Your task to perform on an android device: toggle translation in the chrome app Image 0: 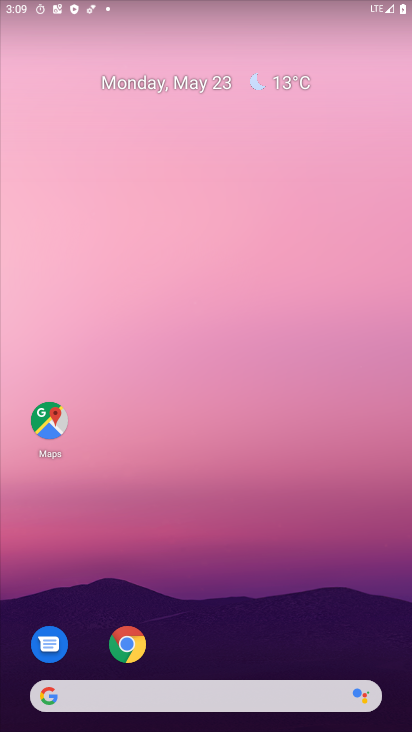
Step 0: drag from (151, 87) to (146, 35)
Your task to perform on an android device: toggle translation in the chrome app Image 1: 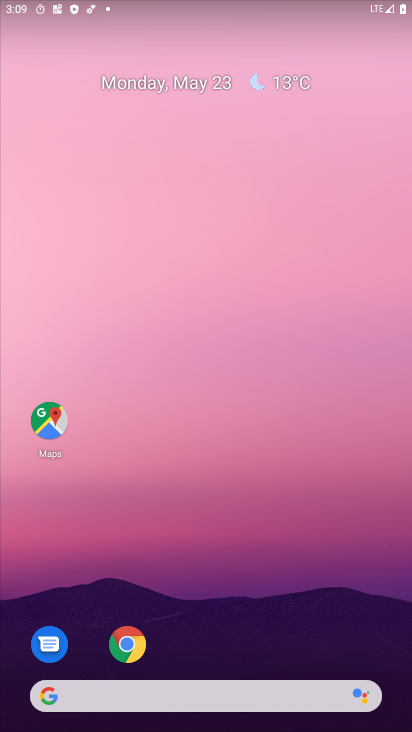
Step 1: drag from (202, 667) to (189, 99)
Your task to perform on an android device: toggle translation in the chrome app Image 2: 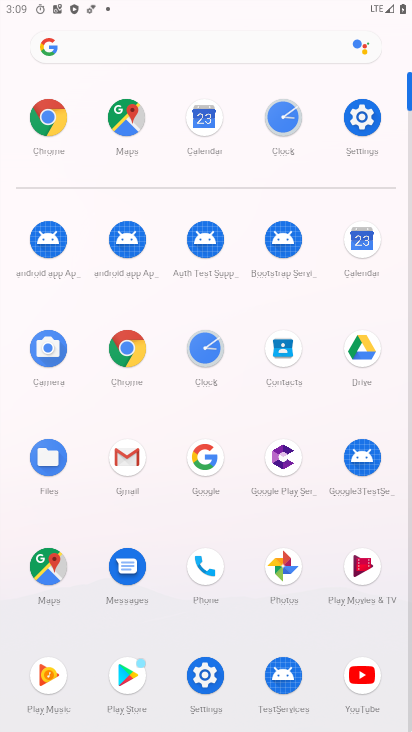
Step 2: click (135, 358)
Your task to perform on an android device: toggle translation in the chrome app Image 3: 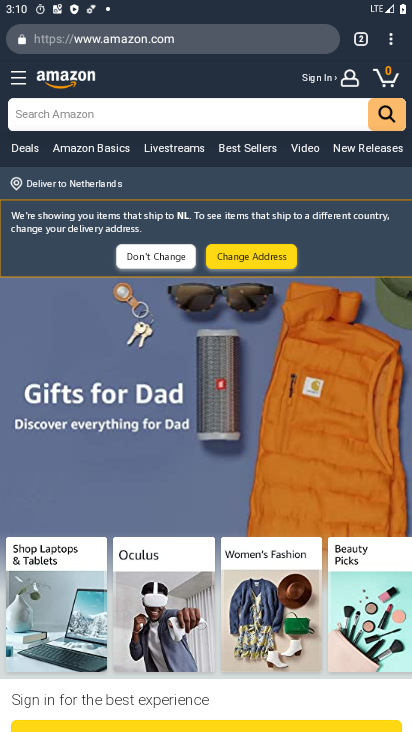
Step 3: click (386, 41)
Your task to perform on an android device: toggle translation in the chrome app Image 4: 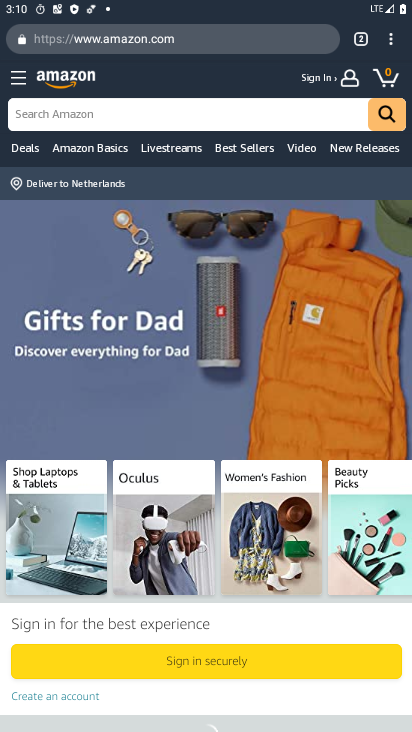
Step 4: drag from (392, 38) to (256, 473)
Your task to perform on an android device: toggle translation in the chrome app Image 5: 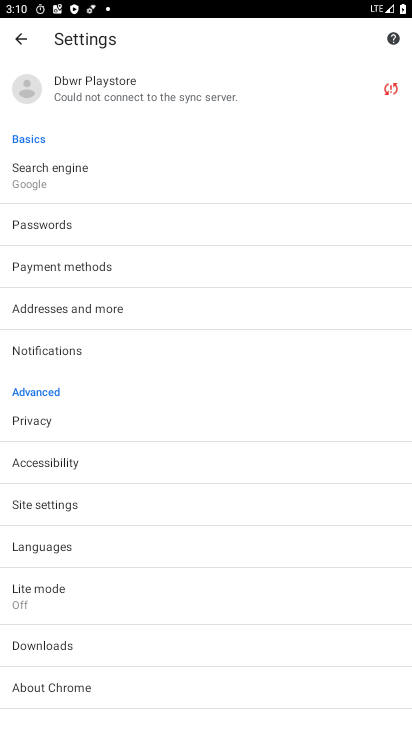
Step 5: drag from (159, 581) to (86, 104)
Your task to perform on an android device: toggle translation in the chrome app Image 6: 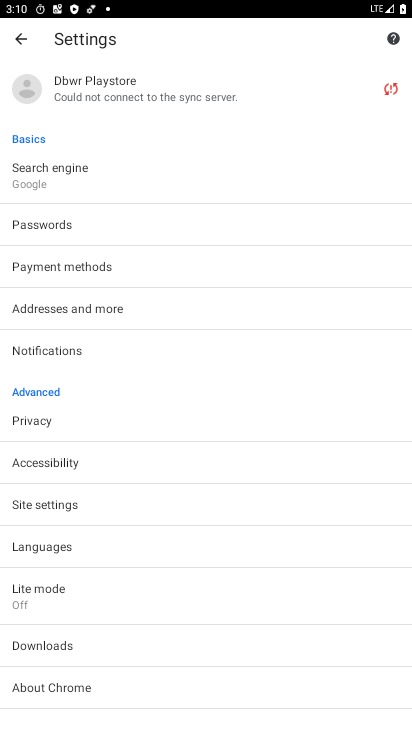
Step 6: click (71, 550)
Your task to perform on an android device: toggle translation in the chrome app Image 7: 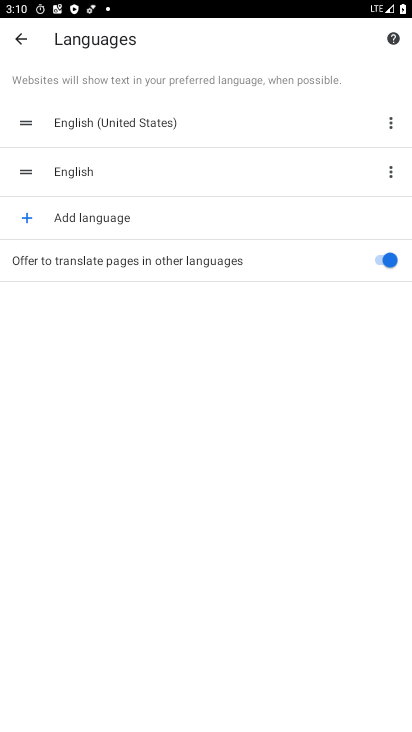
Step 7: click (379, 262)
Your task to perform on an android device: toggle translation in the chrome app Image 8: 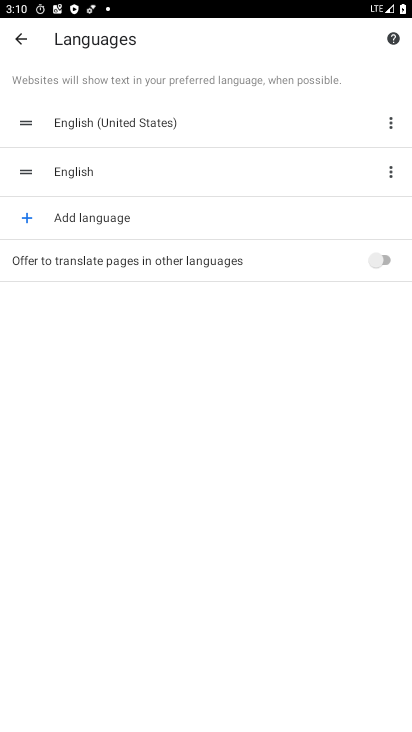
Step 8: task complete